Your task to perform on an android device: Search for seafood restaurants on Google Maps Image 0: 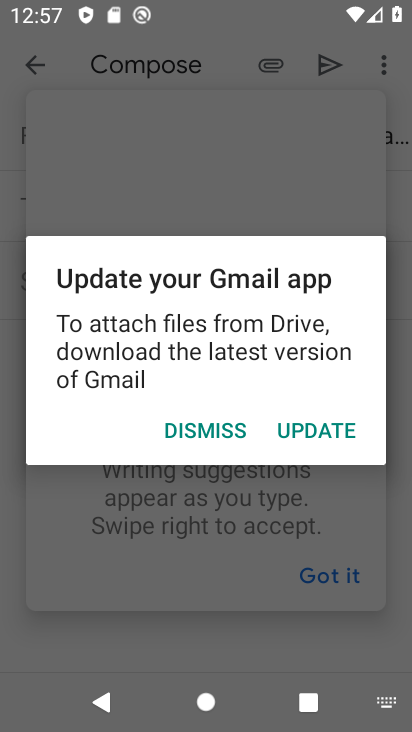
Step 0: press home button
Your task to perform on an android device: Search for seafood restaurants on Google Maps Image 1: 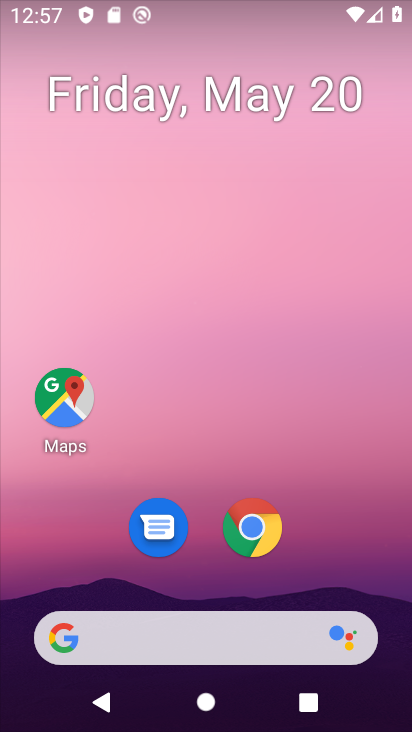
Step 1: click (62, 408)
Your task to perform on an android device: Search for seafood restaurants on Google Maps Image 2: 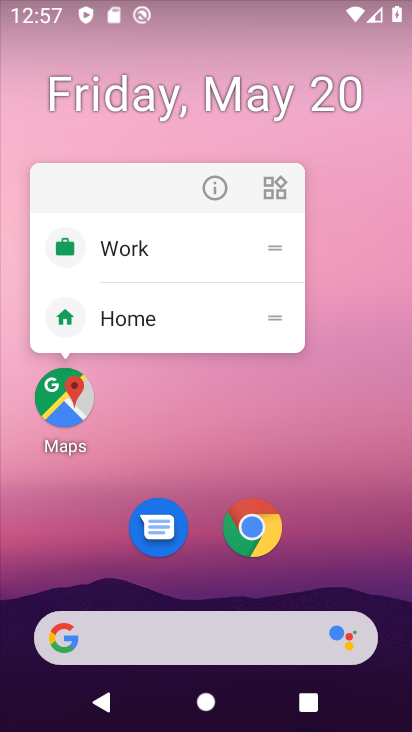
Step 2: click (62, 408)
Your task to perform on an android device: Search for seafood restaurants on Google Maps Image 3: 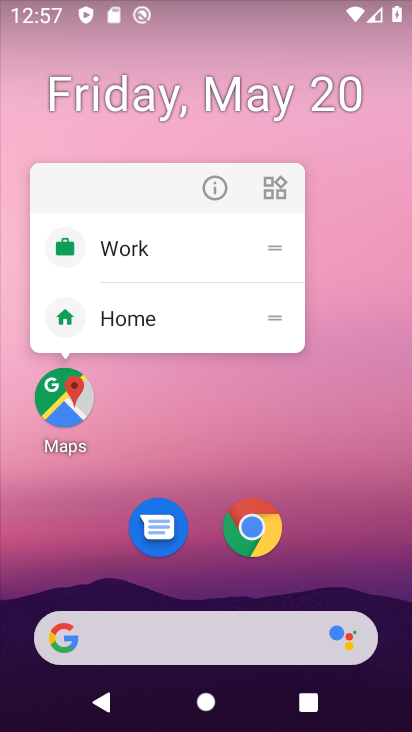
Step 3: click (55, 429)
Your task to perform on an android device: Search for seafood restaurants on Google Maps Image 4: 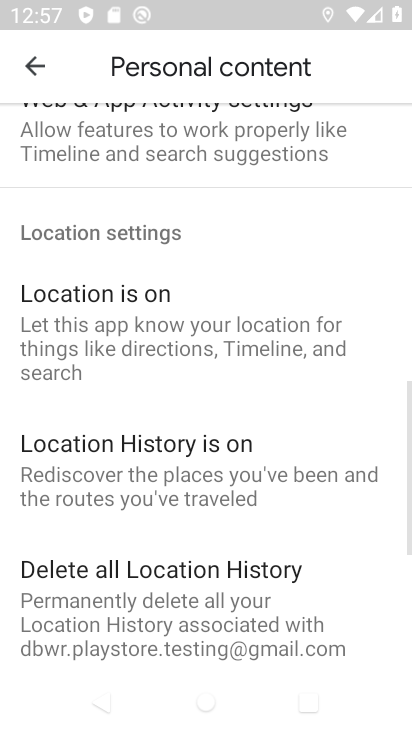
Step 4: click (37, 64)
Your task to perform on an android device: Search for seafood restaurants on Google Maps Image 5: 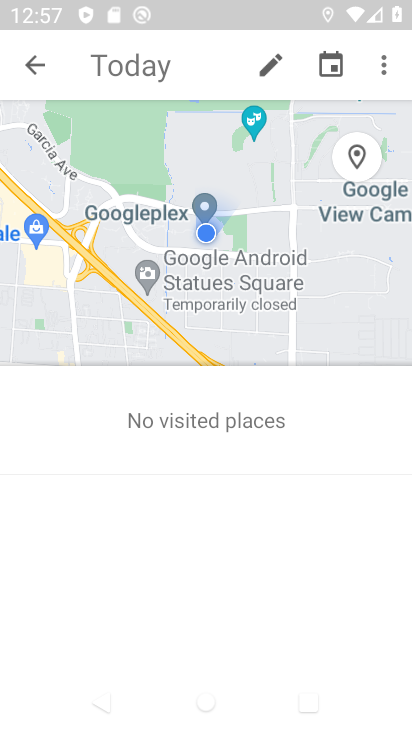
Step 5: click (37, 64)
Your task to perform on an android device: Search for seafood restaurants on Google Maps Image 6: 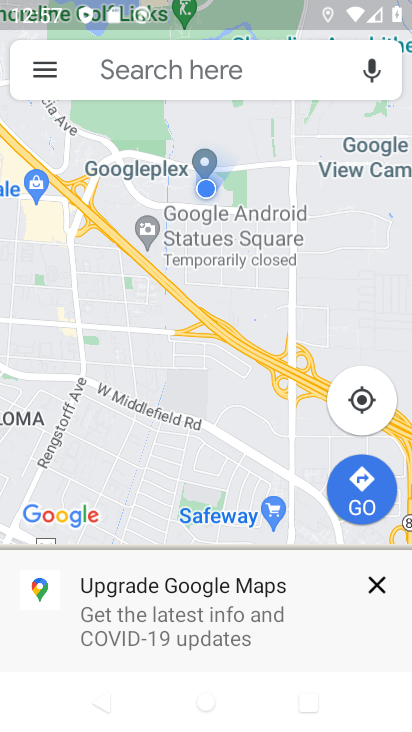
Step 6: click (169, 70)
Your task to perform on an android device: Search for seafood restaurants on Google Maps Image 7: 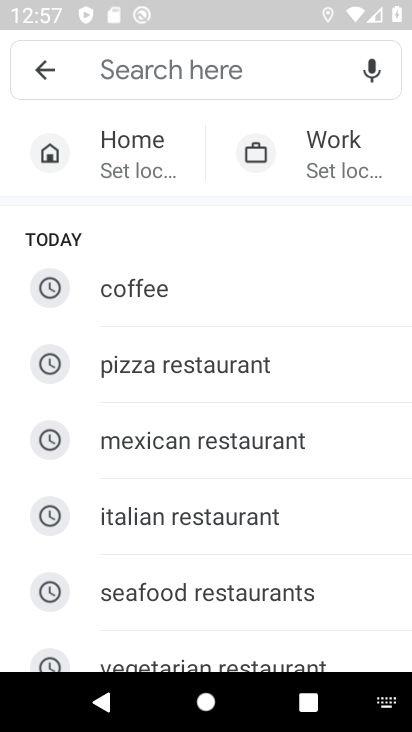
Step 7: click (206, 598)
Your task to perform on an android device: Search for seafood restaurants on Google Maps Image 8: 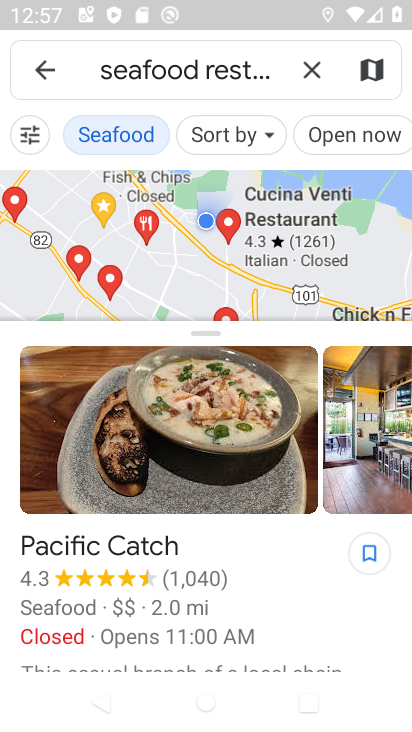
Step 8: task complete